Your task to perform on an android device: See recent photos Image 0: 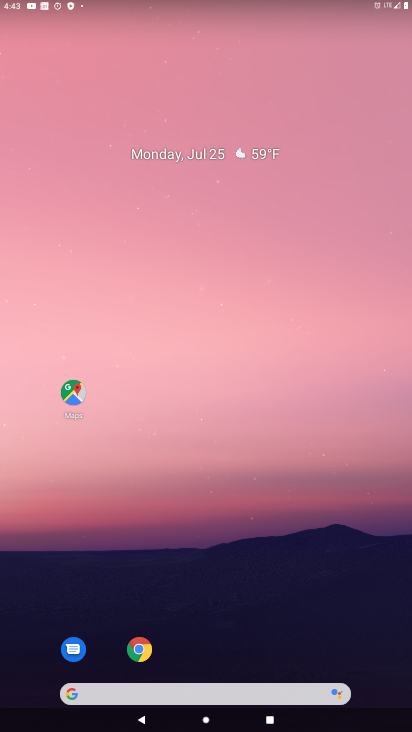
Step 0: drag from (268, 653) to (220, 187)
Your task to perform on an android device: See recent photos Image 1: 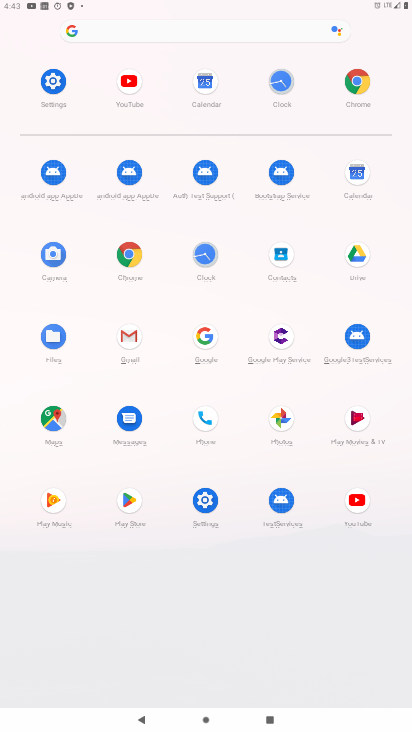
Step 1: click (282, 421)
Your task to perform on an android device: See recent photos Image 2: 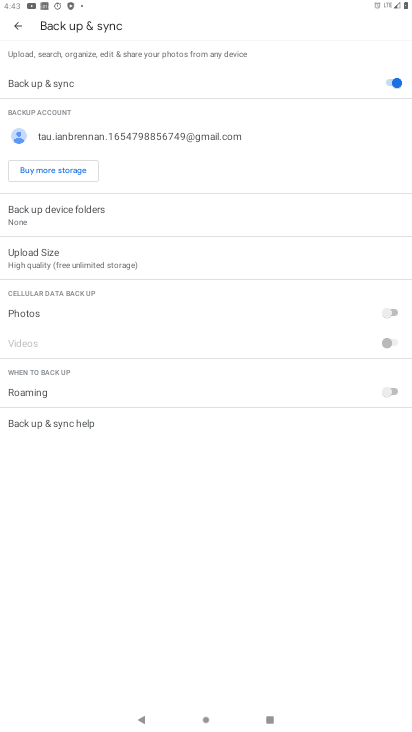
Step 2: click (15, 24)
Your task to perform on an android device: See recent photos Image 3: 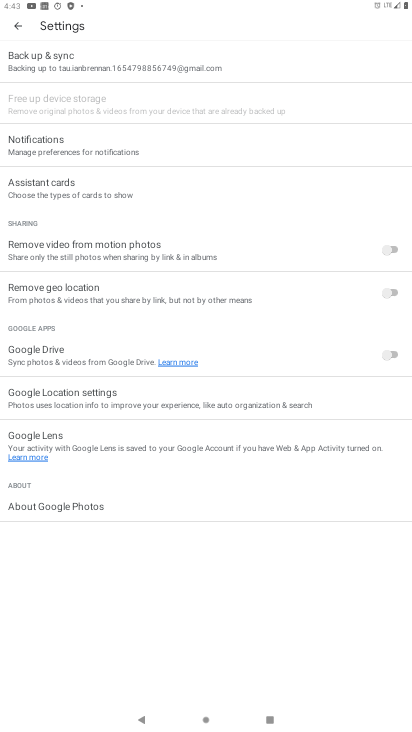
Step 3: click (21, 24)
Your task to perform on an android device: See recent photos Image 4: 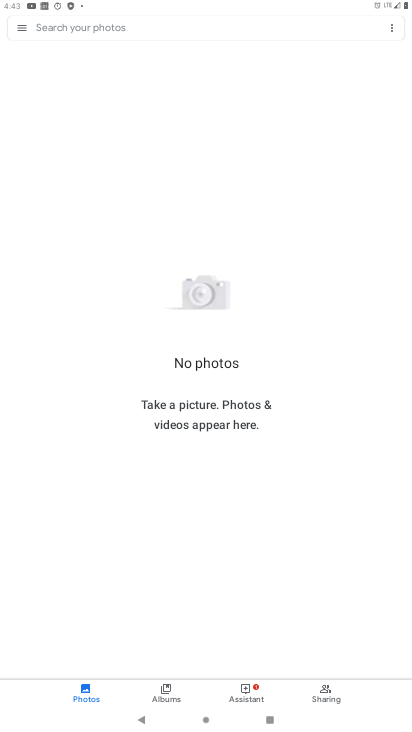
Step 4: task complete